Your task to perform on an android device: Go to sound settings Image 0: 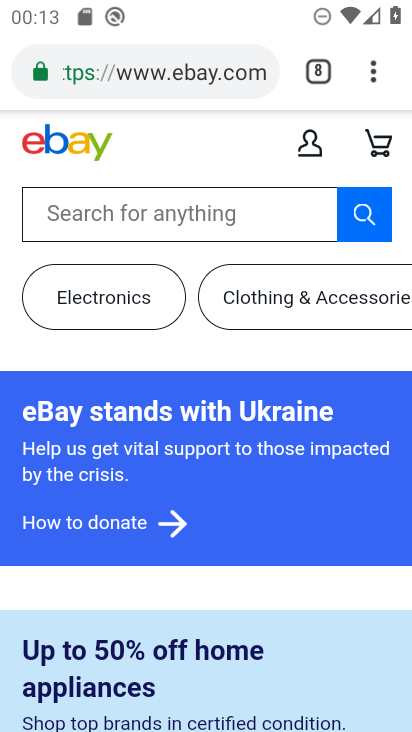
Step 0: press home button
Your task to perform on an android device: Go to sound settings Image 1: 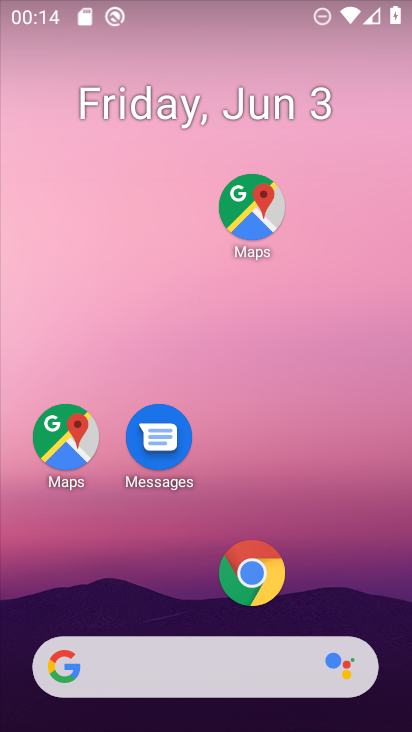
Step 1: drag from (329, 564) to (324, 40)
Your task to perform on an android device: Go to sound settings Image 2: 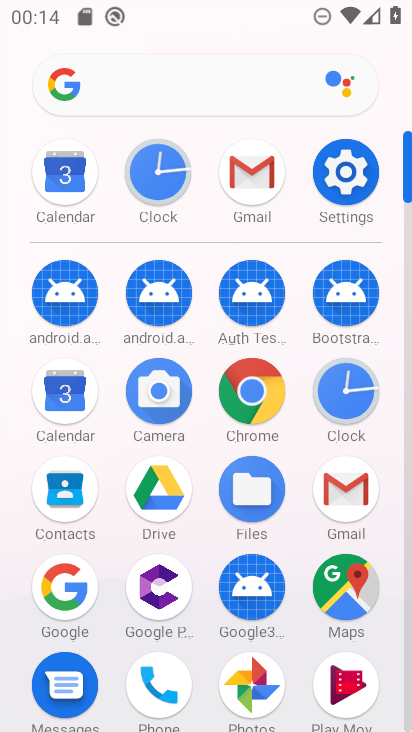
Step 2: click (362, 166)
Your task to perform on an android device: Go to sound settings Image 3: 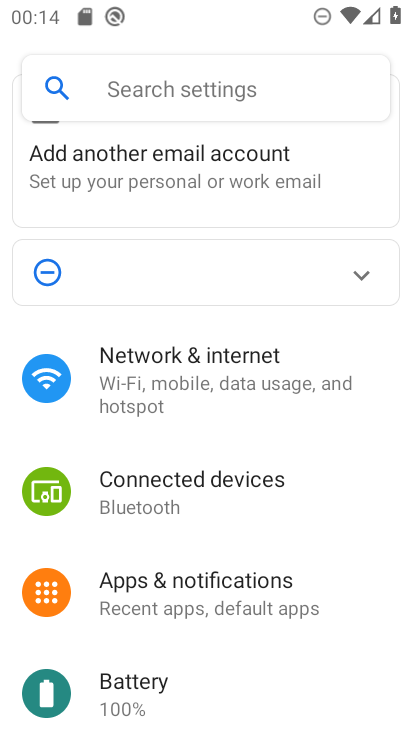
Step 3: drag from (301, 671) to (262, 309)
Your task to perform on an android device: Go to sound settings Image 4: 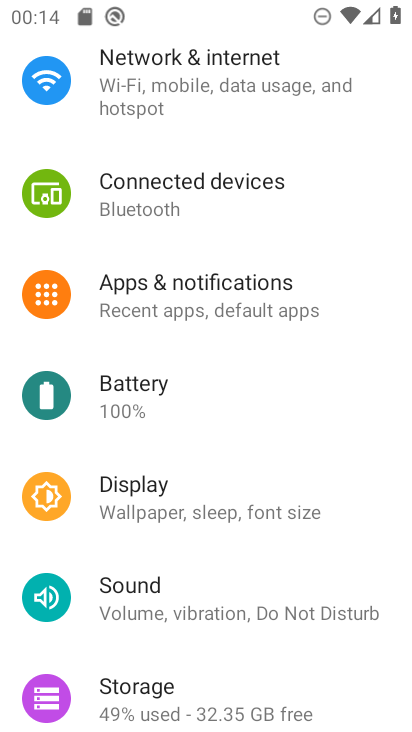
Step 4: click (190, 585)
Your task to perform on an android device: Go to sound settings Image 5: 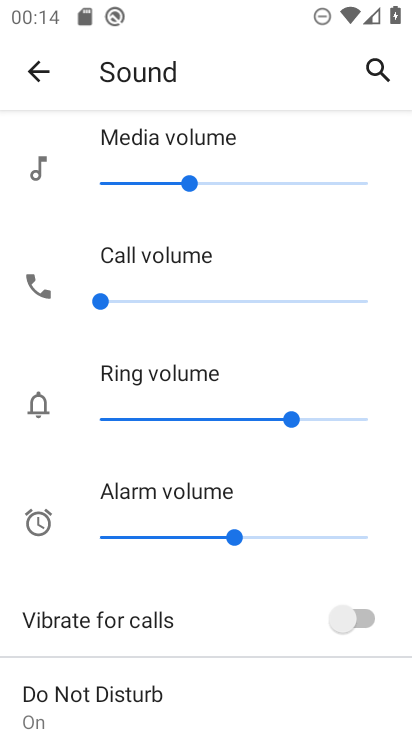
Step 5: task complete